Your task to perform on an android device: turn pop-ups off in chrome Image 0: 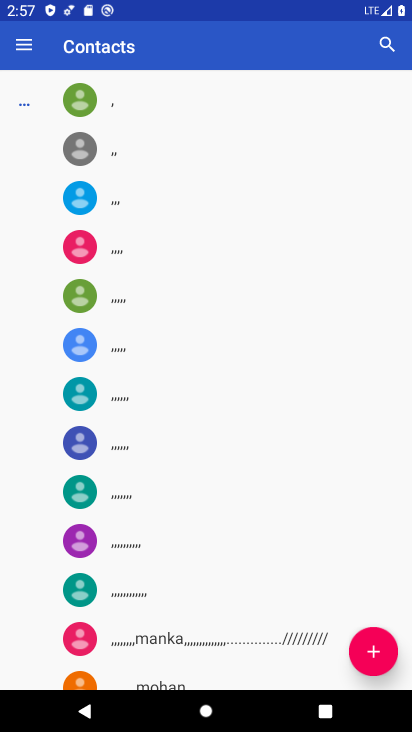
Step 0: press home button
Your task to perform on an android device: turn pop-ups off in chrome Image 1: 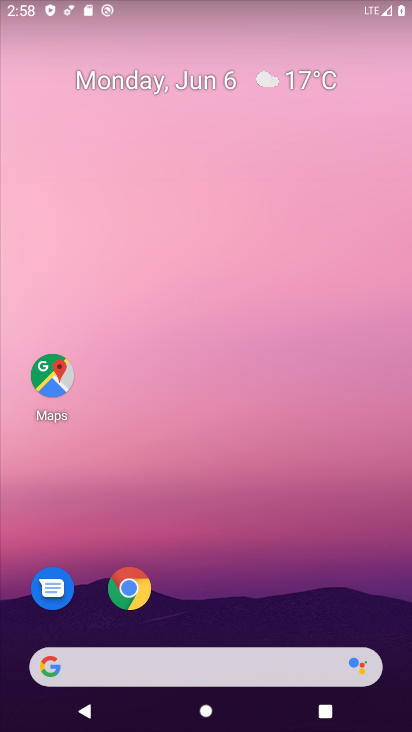
Step 1: click (129, 605)
Your task to perform on an android device: turn pop-ups off in chrome Image 2: 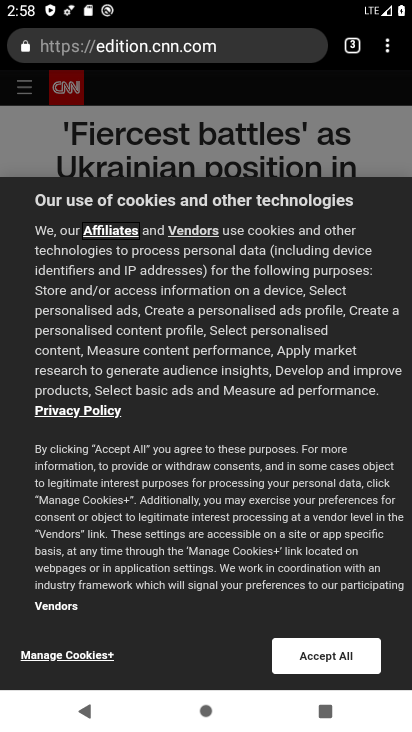
Step 2: drag from (391, 57) to (259, 502)
Your task to perform on an android device: turn pop-ups off in chrome Image 3: 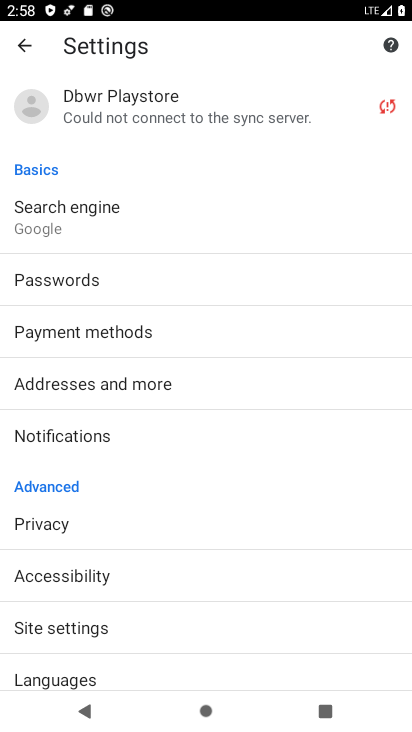
Step 3: click (112, 616)
Your task to perform on an android device: turn pop-ups off in chrome Image 4: 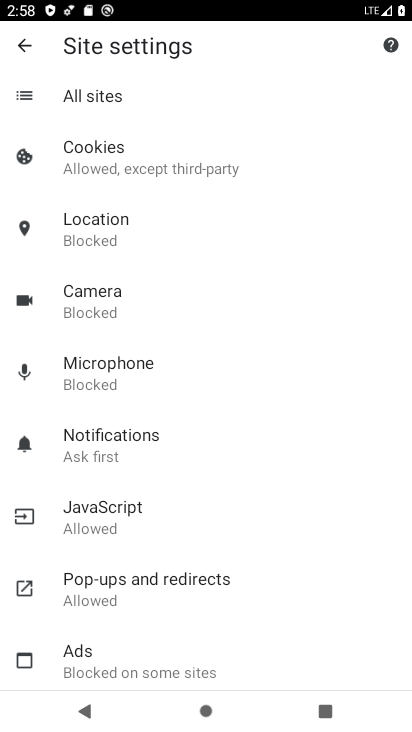
Step 4: click (140, 570)
Your task to perform on an android device: turn pop-ups off in chrome Image 5: 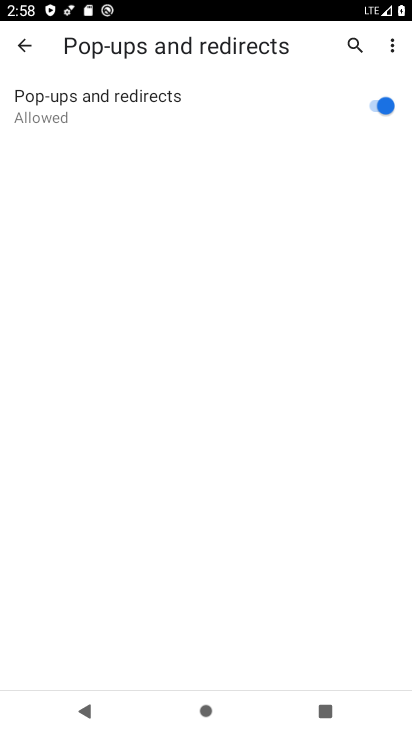
Step 5: click (383, 100)
Your task to perform on an android device: turn pop-ups off in chrome Image 6: 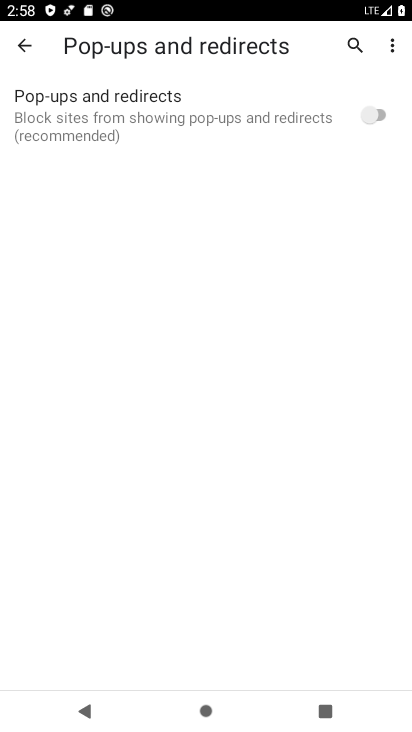
Step 6: task complete